Your task to perform on an android device: Open calendar and show me the first week of next month Image 0: 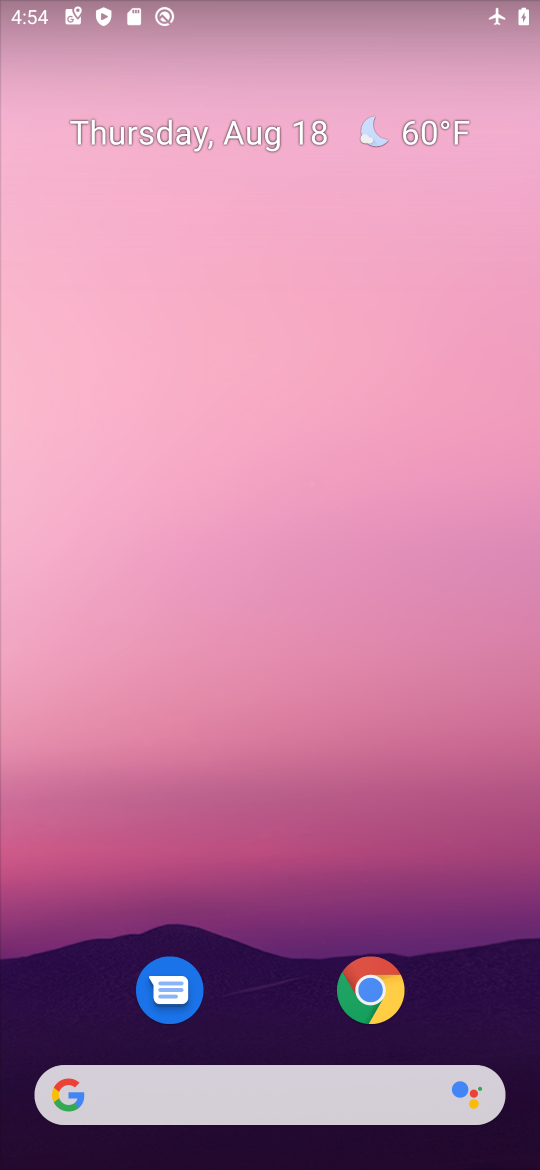
Step 0: drag from (279, 822) to (432, 36)
Your task to perform on an android device: Open calendar and show me the first week of next month Image 1: 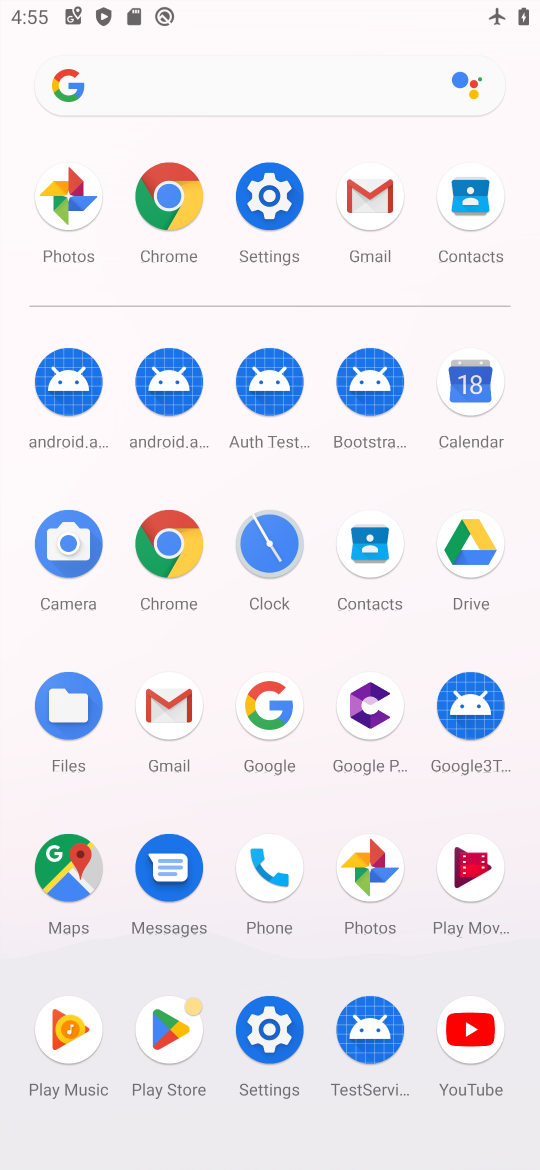
Step 1: click (474, 376)
Your task to perform on an android device: Open calendar and show me the first week of next month Image 2: 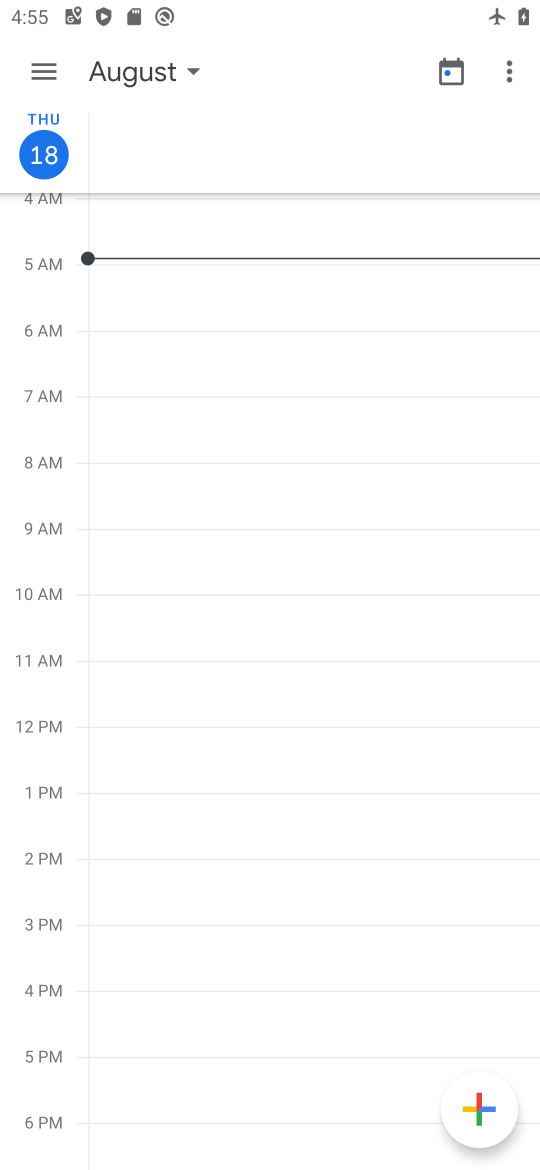
Step 2: click (143, 71)
Your task to perform on an android device: Open calendar and show me the first week of next month Image 3: 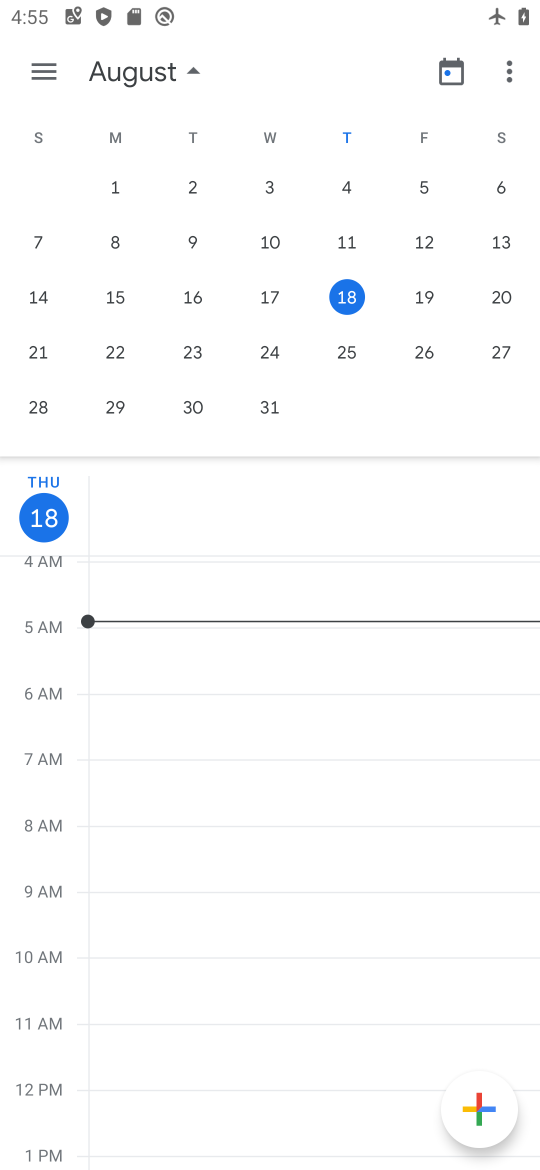
Step 3: click (52, 84)
Your task to perform on an android device: Open calendar and show me the first week of next month Image 4: 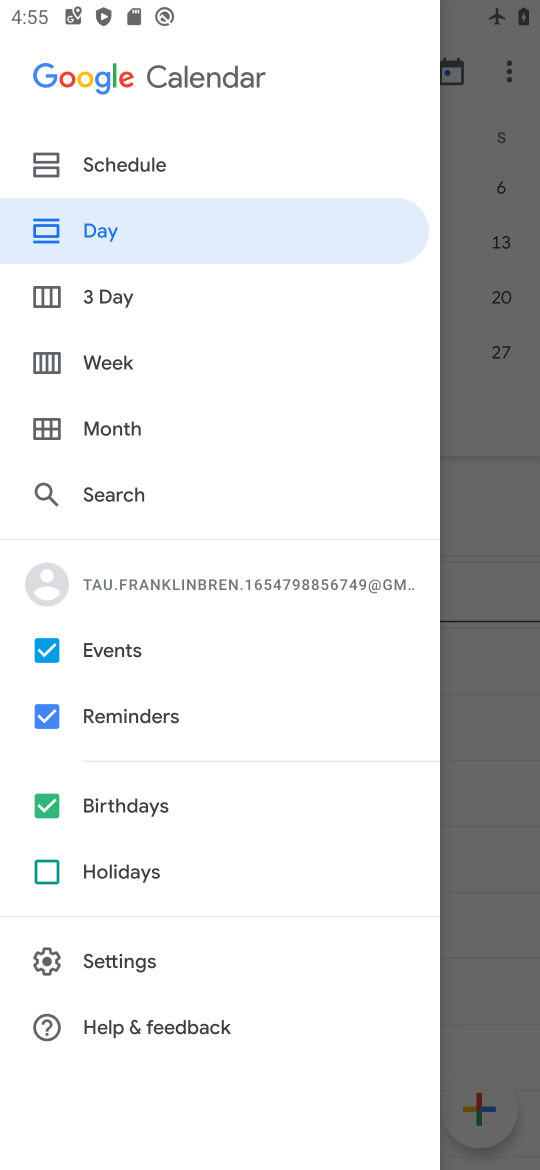
Step 4: click (455, 255)
Your task to perform on an android device: Open calendar and show me the first week of next month Image 5: 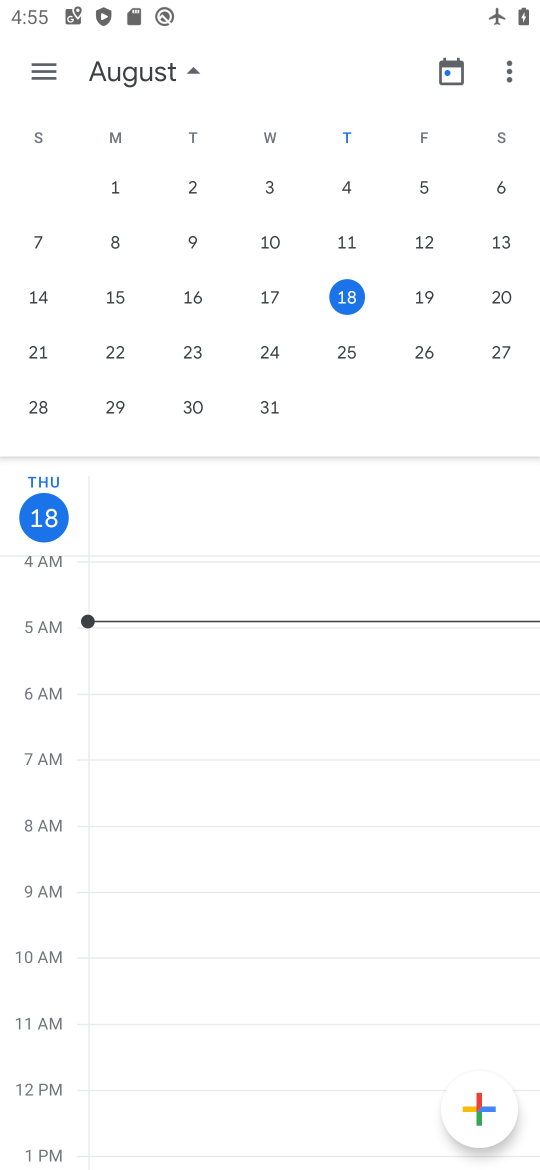
Step 5: drag from (503, 248) to (10, 253)
Your task to perform on an android device: Open calendar and show me the first week of next month Image 6: 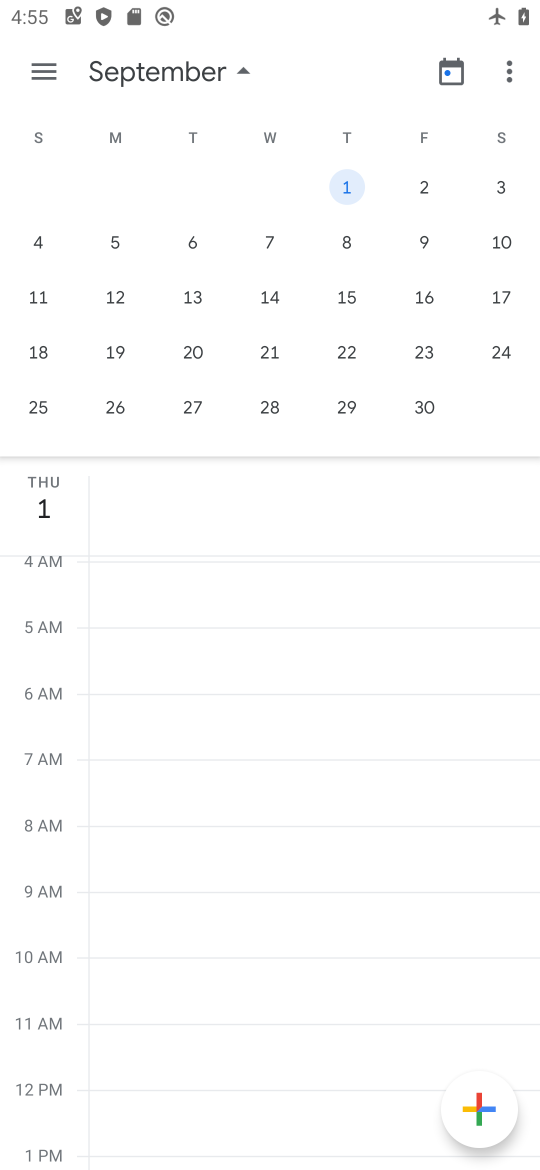
Step 6: click (167, 245)
Your task to perform on an android device: Open calendar and show me the first week of next month Image 7: 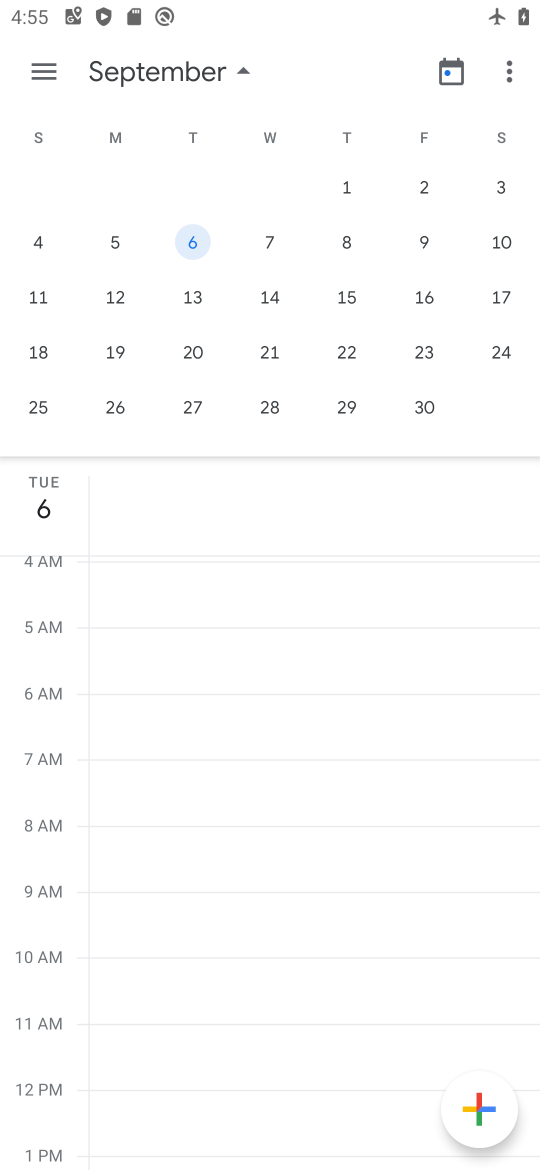
Step 7: click (37, 55)
Your task to perform on an android device: Open calendar and show me the first week of next month Image 8: 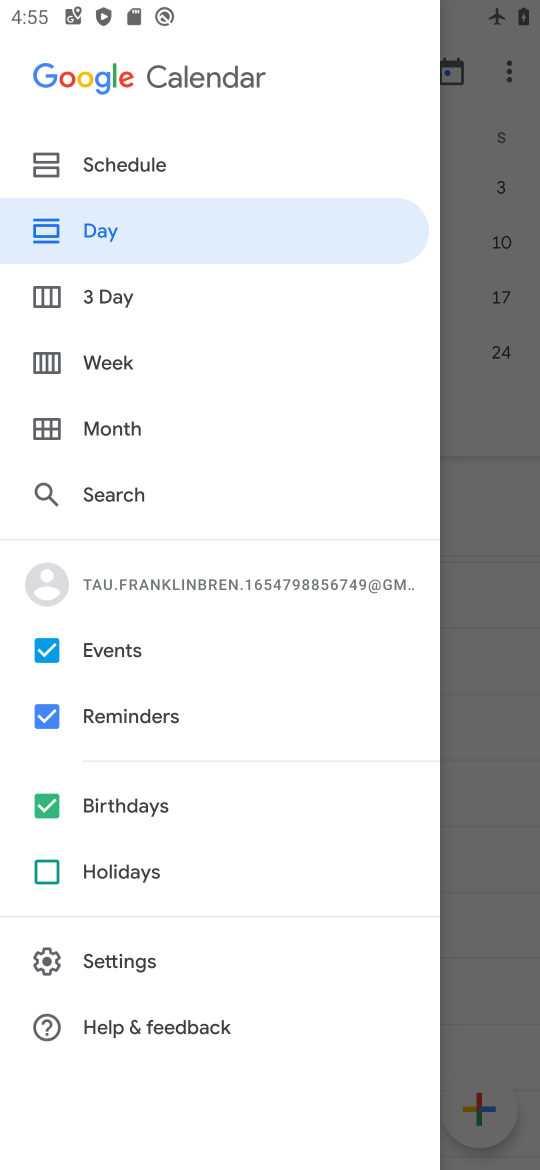
Step 8: click (117, 350)
Your task to perform on an android device: Open calendar and show me the first week of next month Image 9: 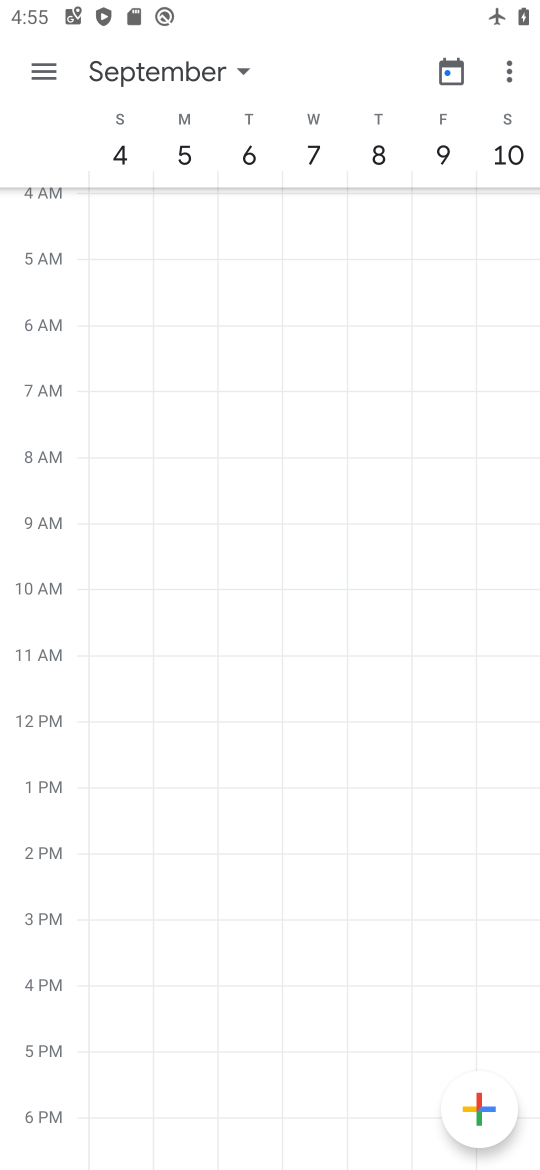
Step 9: task complete